Your task to perform on an android device: change your default location settings in chrome Image 0: 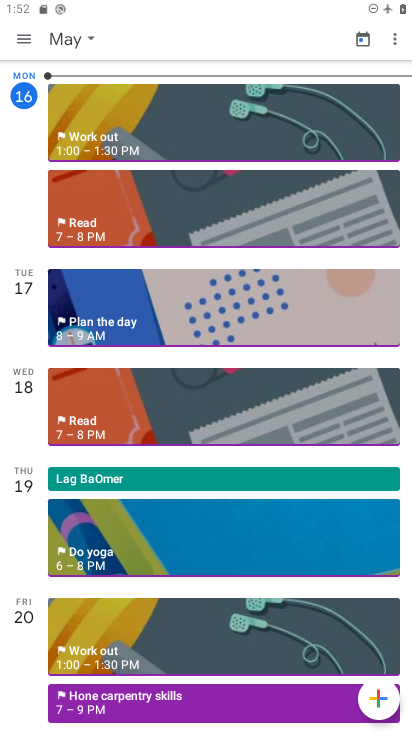
Step 0: drag from (221, 639) to (272, 4)
Your task to perform on an android device: change your default location settings in chrome Image 1: 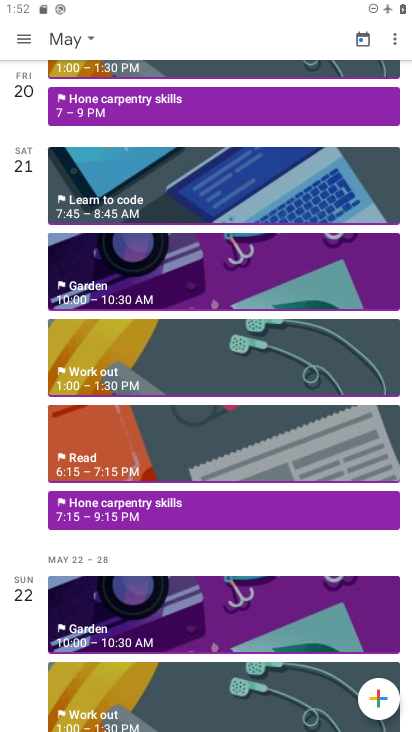
Step 1: drag from (203, 120) to (218, 593)
Your task to perform on an android device: change your default location settings in chrome Image 2: 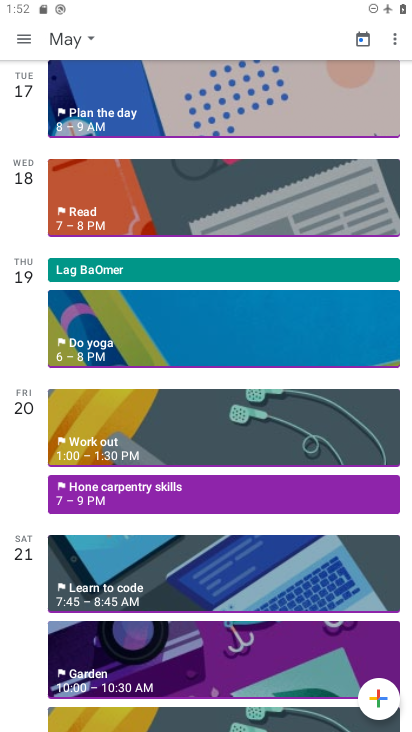
Step 2: click (85, 43)
Your task to perform on an android device: change your default location settings in chrome Image 3: 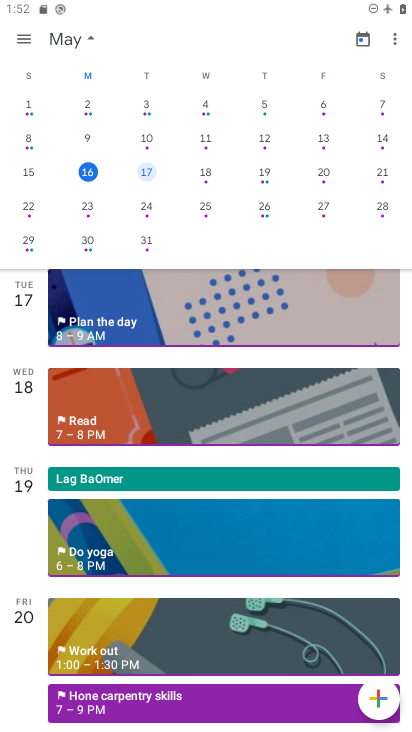
Step 3: press home button
Your task to perform on an android device: change your default location settings in chrome Image 4: 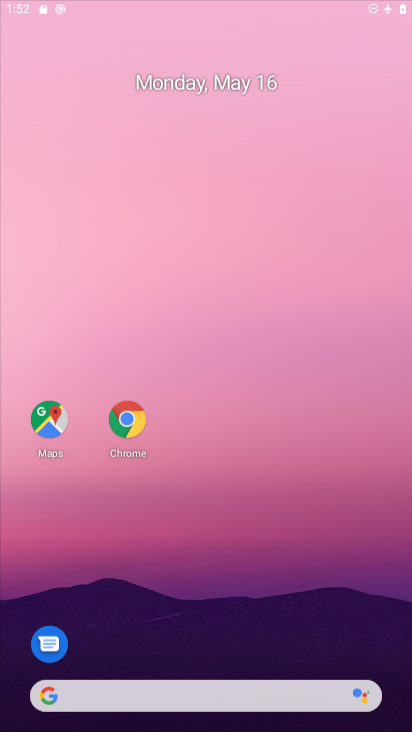
Step 4: drag from (182, 635) to (325, 9)
Your task to perform on an android device: change your default location settings in chrome Image 5: 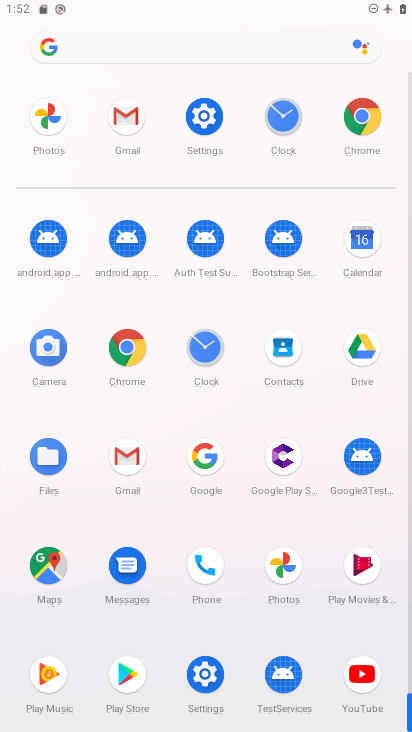
Step 5: click (355, 108)
Your task to perform on an android device: change your default location settings in chrome Image 6: 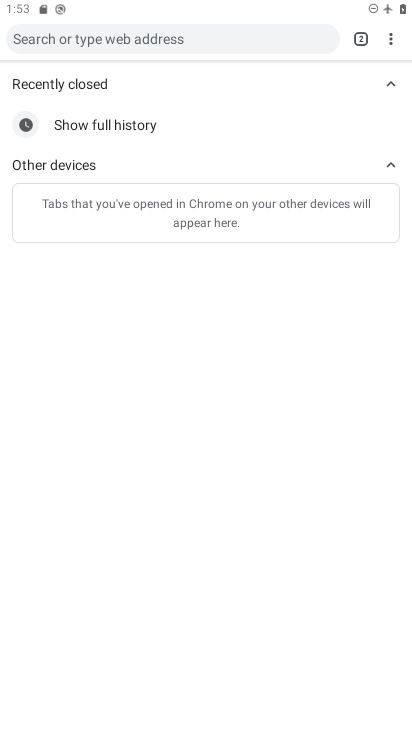
Step 6: click (395, 43)
Your task to perform on an android device: change your default location settings in chrome Image 7: 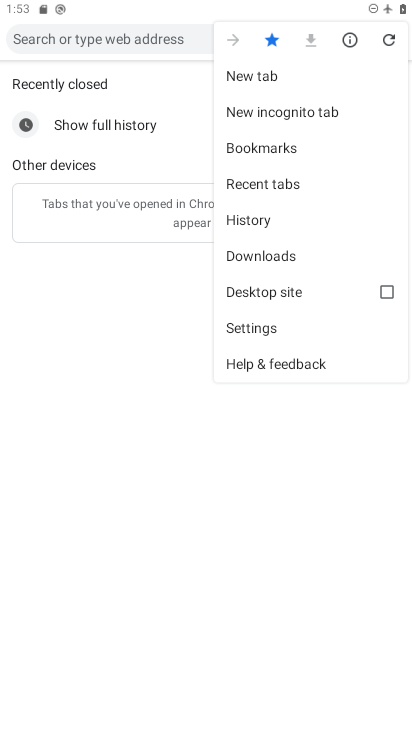
Step 7: click (276, 329)
Your task to perform on an android device: change your default location settings in chrome Image 8: 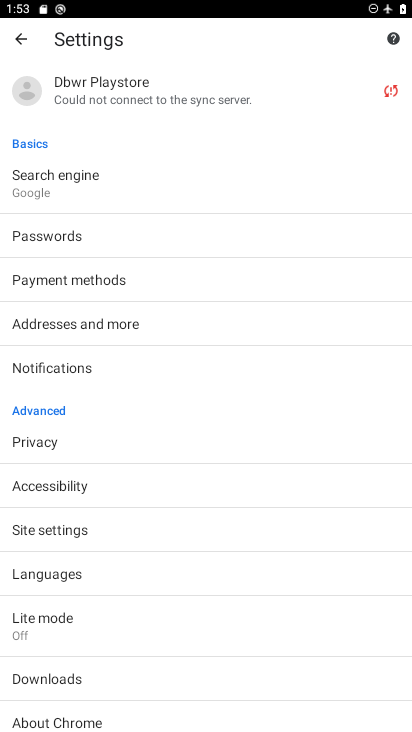
Step 8: drag from (144, 587) to (222, 101)
Your task to perform on an android device: change your default location settings in chrome Image 9: 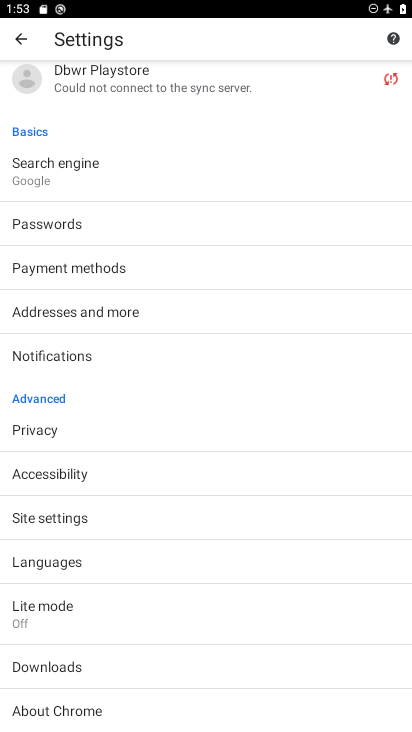
Step 9: click (77, 520)
Your task to perform on an android device: change your default location settings in chrome Image 10: 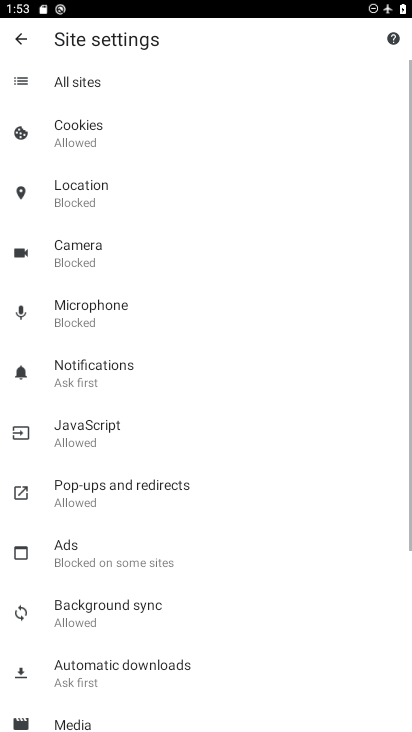
Step 10: click (163, 194)
Your task to perform on an android device: change your default location settings in chrome Image 11: 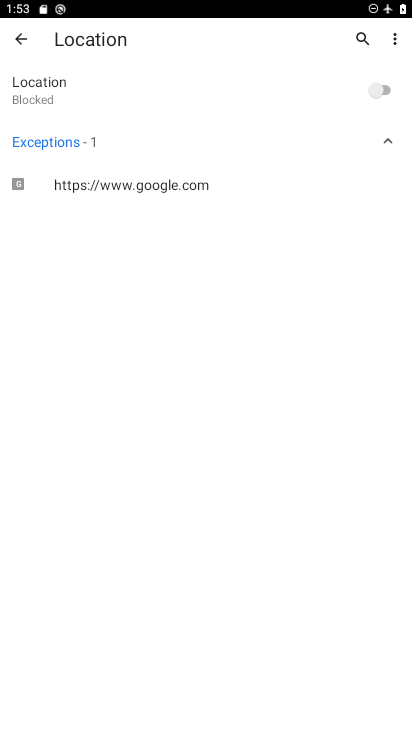
Step 11: drag from (204, 411) to (268, 129)
Your task to perform on an android device: change your default location settings in chrome Image 12: 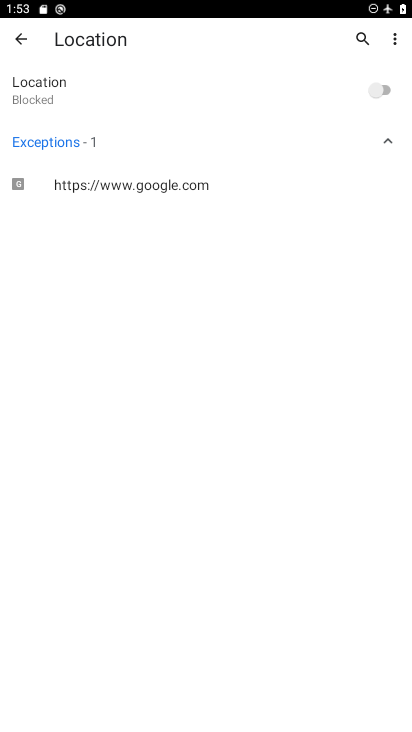
Step 12: click (364, 95)
Your task to perform on an android device: change your default location settings in chrome Image 13: 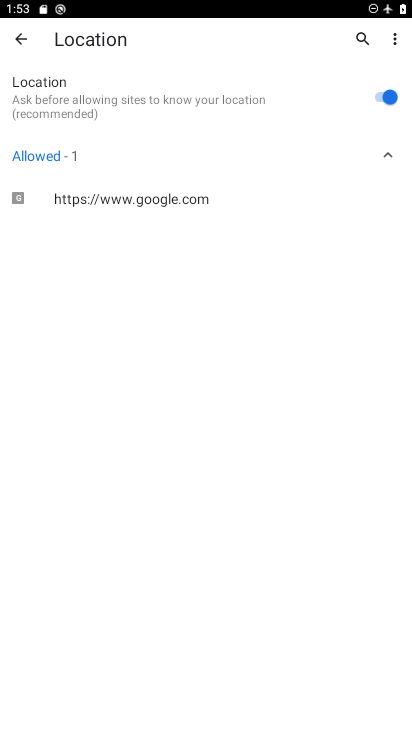
Step 13: task complete